Your task to perform on an android device: find which apps use the phone's location Image 0: 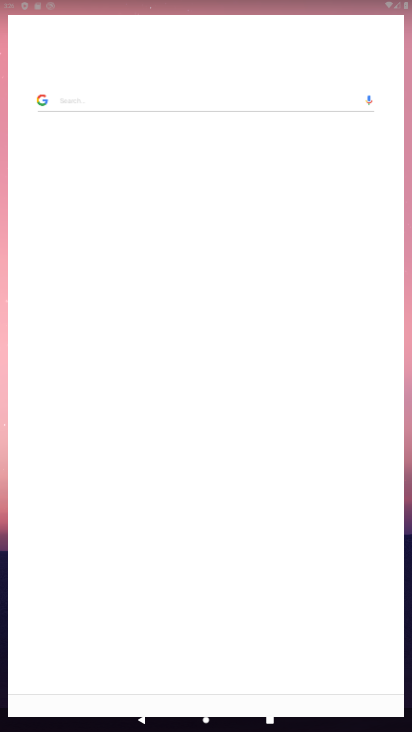
Step 0: drag from (373, 668) to (292, 3)
Your task to perform on an android device: find which apps use the phone's location Image 1: 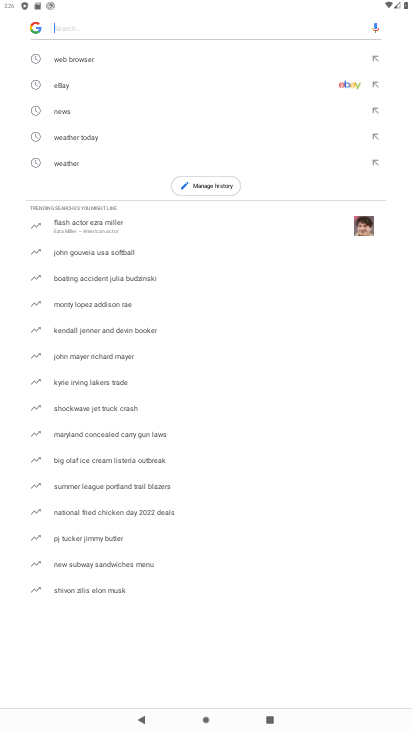
Step 1: press home button
Your task to perform on an android device: find which apps use the phone's location Image 2: 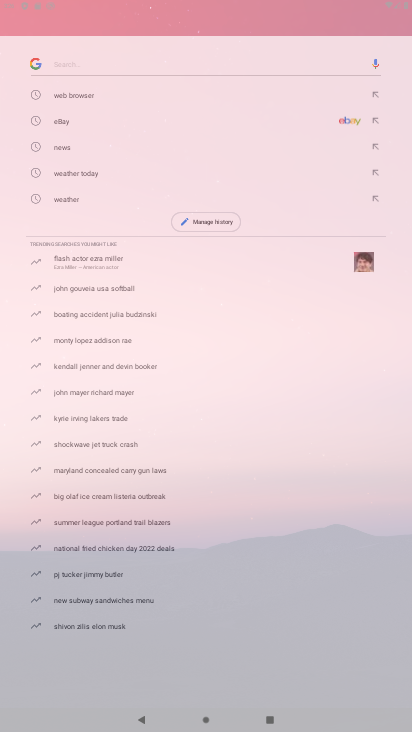
Step 2: drag from (369, 673) to (212, 6)
Your task to perform on an android device: find which apps use the phone's location Image 3: 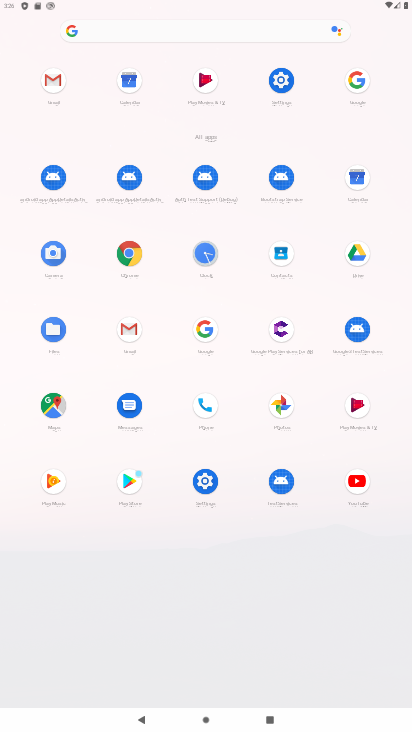
Step 3: click (276, 67)
Your task to perform on an android device: find which apps use the phone's location Image 4: 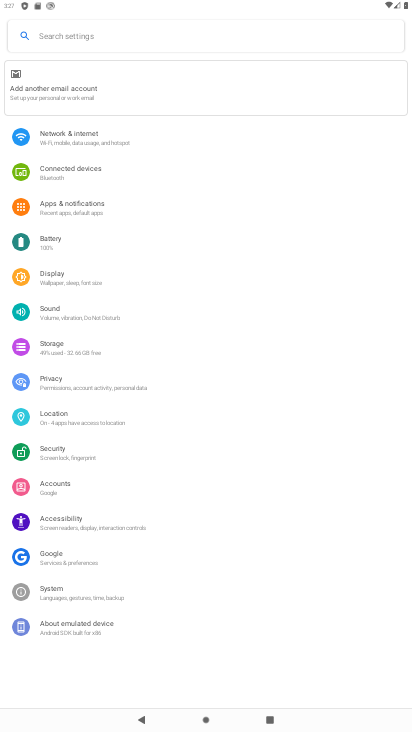
Step 4: click (58, 425)
Your task to perform on an android device: find which apps use the phone's location Image 5: 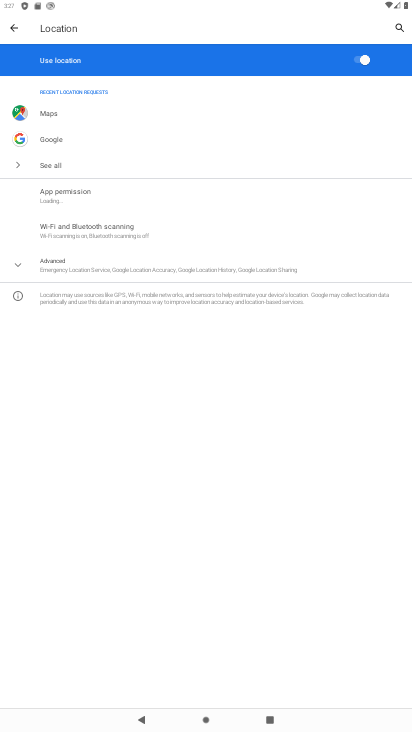
Step 5: click (81, 191)
Your task to perform on an android device: find which apps use the phone's location Image 6: 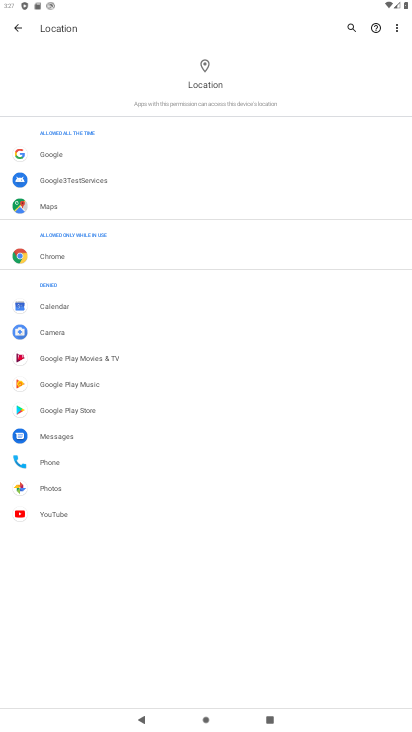
Step 6: click (49, 462)
Your task to perform on an android device: find which apps use the phone's location Image 7: 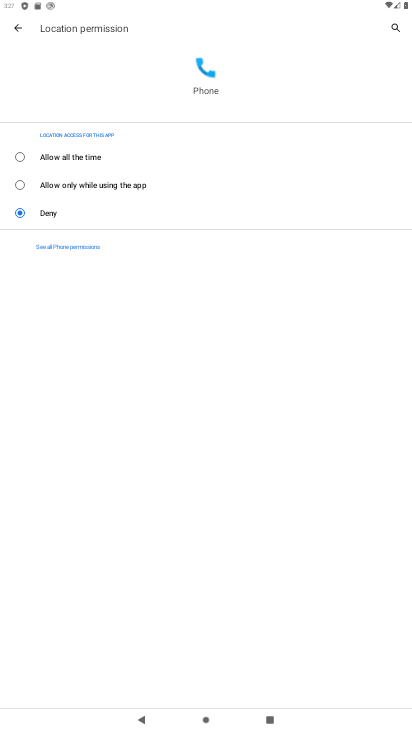
Step 7: click (24, 155)
Your task to perform on an android device: find which apps use the phone's location Image 8: 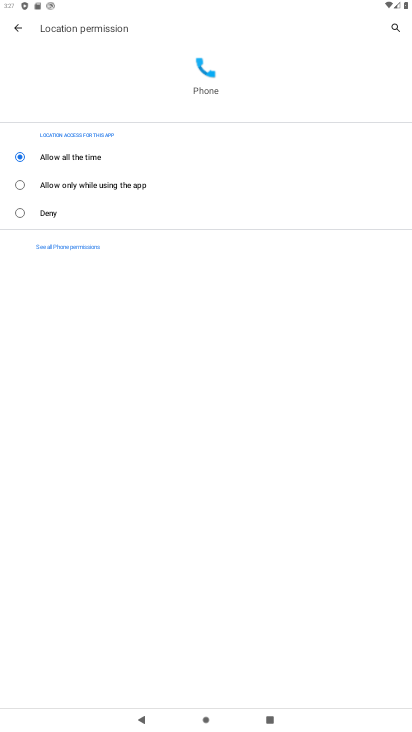
Step 8: task complete